Your task to perform on an android device: Open Google Chrome Image 0: 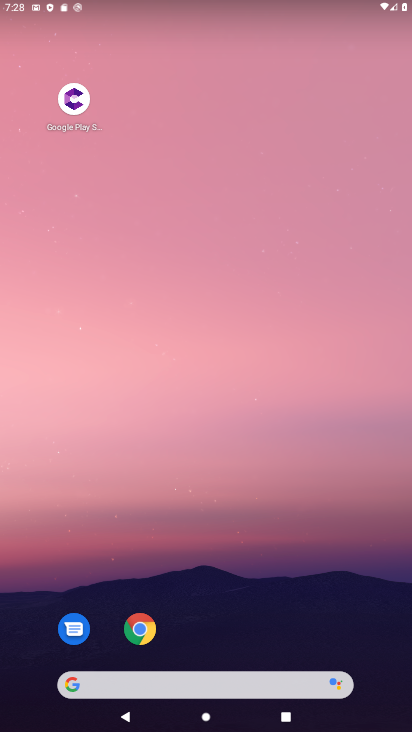
Step 0: click (149, 629)
Your task to perform on an android device: Open Google Chrome Image 1: 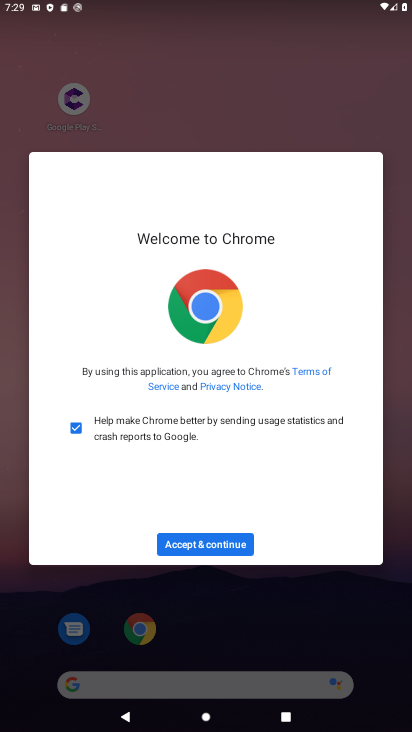
Step 1: click (194, 554)
Your task to perform on an android device: Open Google Chrome Image 2: 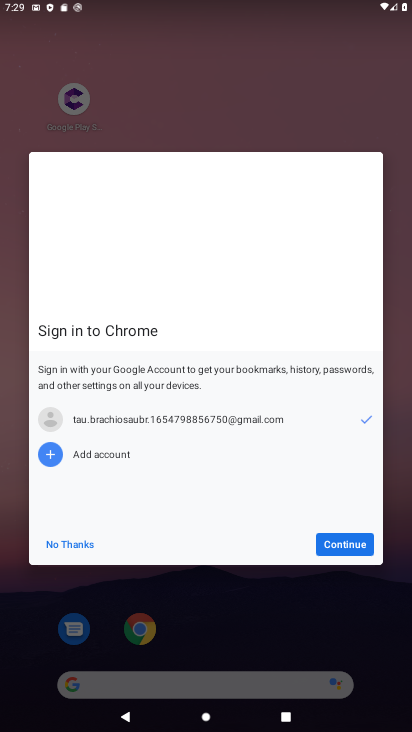
Step 2: click (71, 544)
Your task to perform on an android device: Open Google Chrome Image 3: 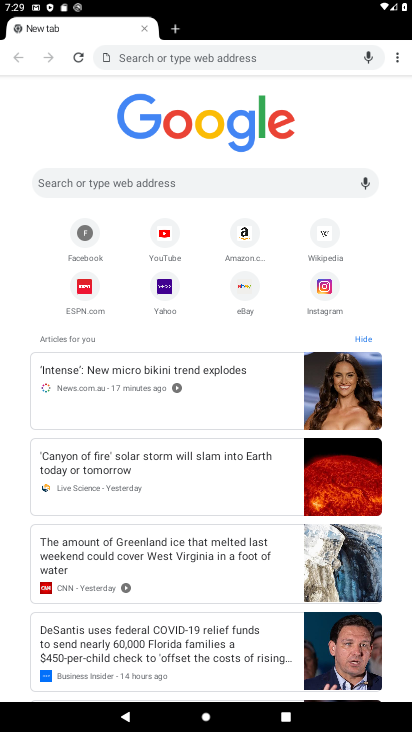
Step 3: task complete